Your task to perform on an android device: turn on data saver in the chrome app Image 0: 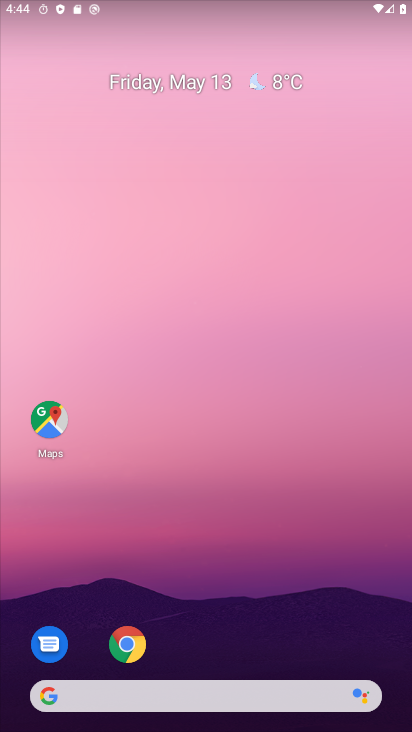
Step 0: click (131, 645)
Your task to perform on an android device: turn on data saver in the chrome app Image 1: 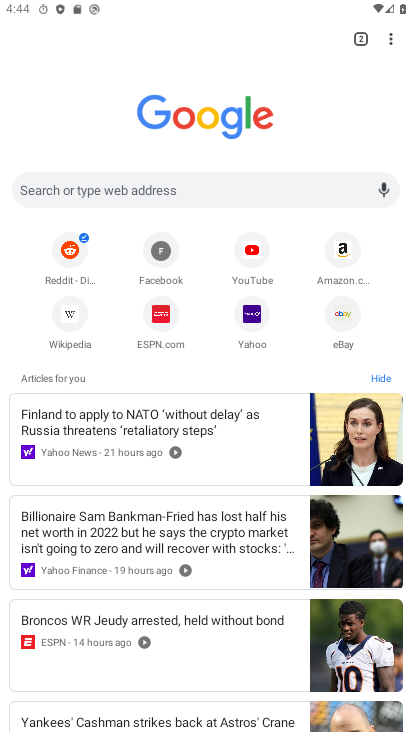
Step 1: click (389, 34)
Your task to perform on an android device: turn on data saver in the chrome app Image 2: 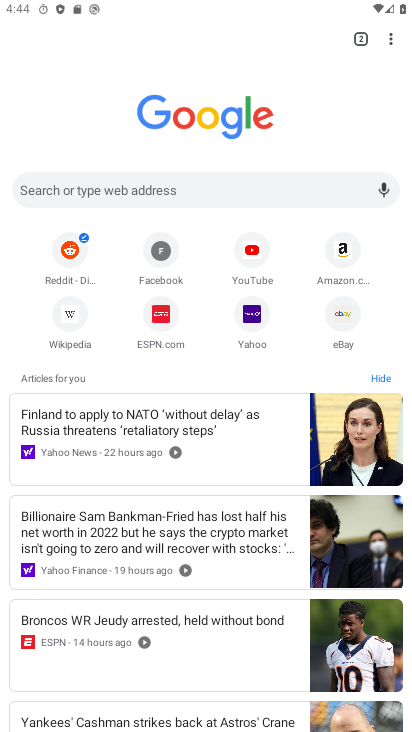
Step 2: click (387, 41)
Your task to perform on an android device: turn on data saver in the chrome app Image 3: 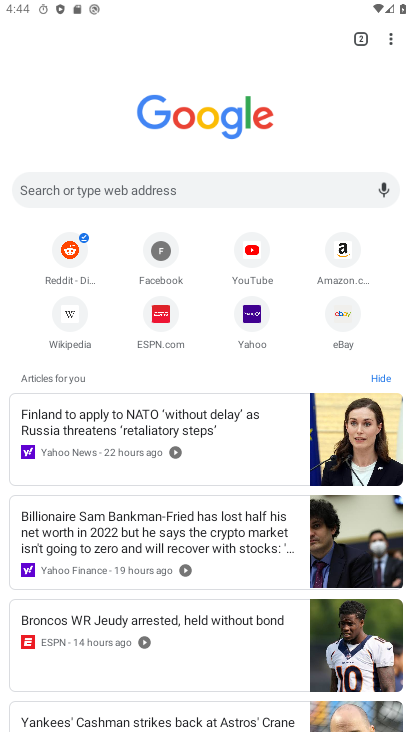
Step 3: click (392, 34)
Your task to perform on an android device: turn on data saver in the chrome app Image 4: 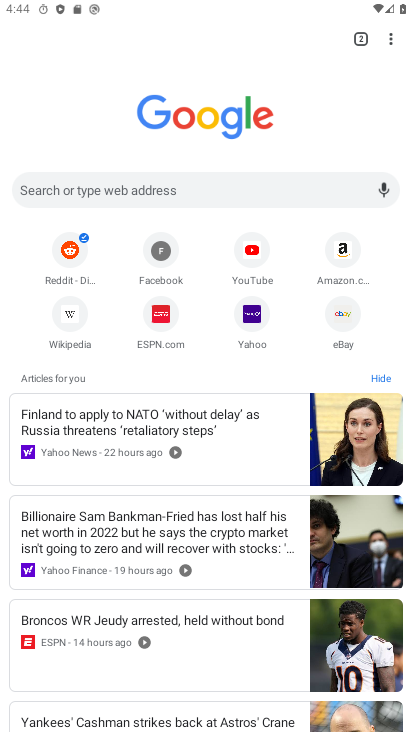
Step 4: click (394, 39)
Your task to perform on an android device: turn on data saver in the chrome app Image 5: 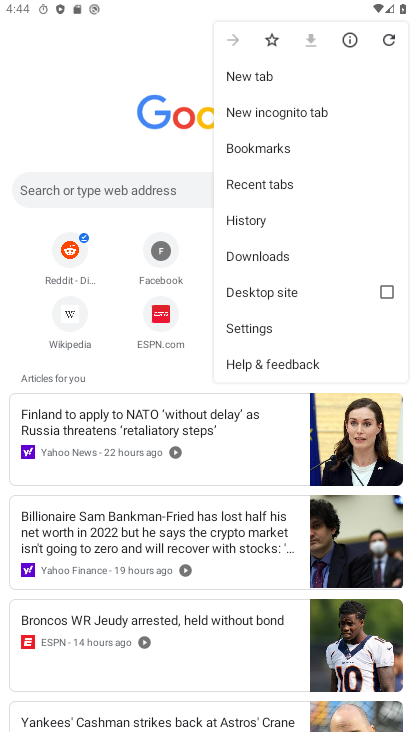
Step 5: click (261, 339)
Your task to perform on an android device: turn on data saver in the chrome app Image 6: 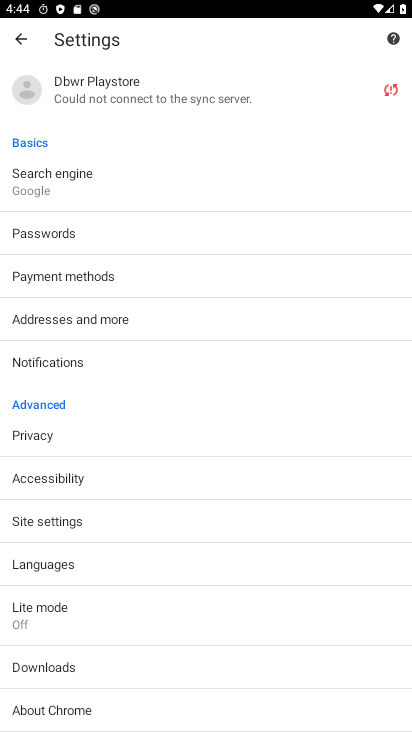
Step 6: click (156, 617)
Your task to perform on an android device: turn on data saver in the chrome app Image 7: 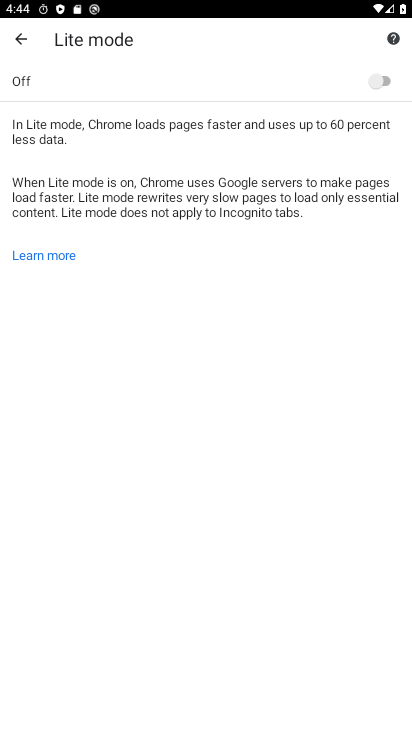
Step 7: click (374, 82)
Your task to perform on an android device: turn on data saver in the chrome app Image 8: 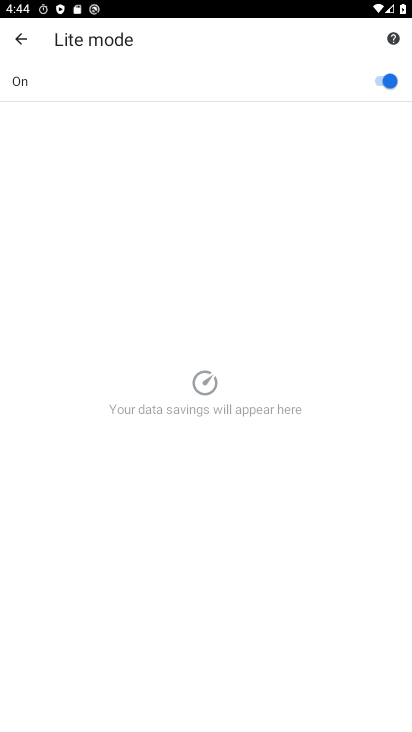
Step 8: task complete